Your task to perform on an android device: stop showing notifications on the lock screen Image 0: 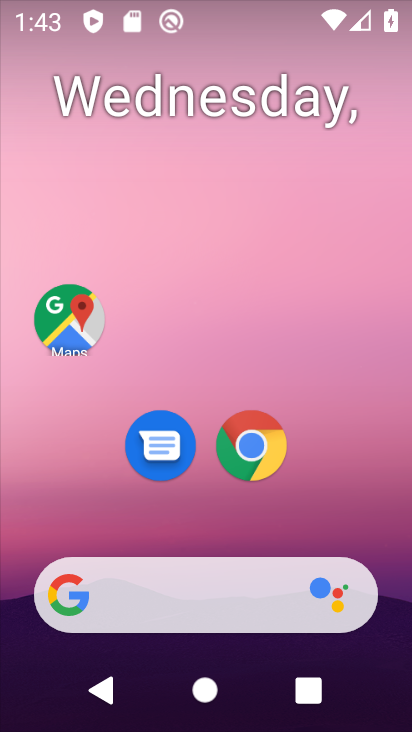
Step 0: drag from (194, 518) to (194, 82)
Your task to perform on an android device: stop showing notifications on the lock screen Image 1: 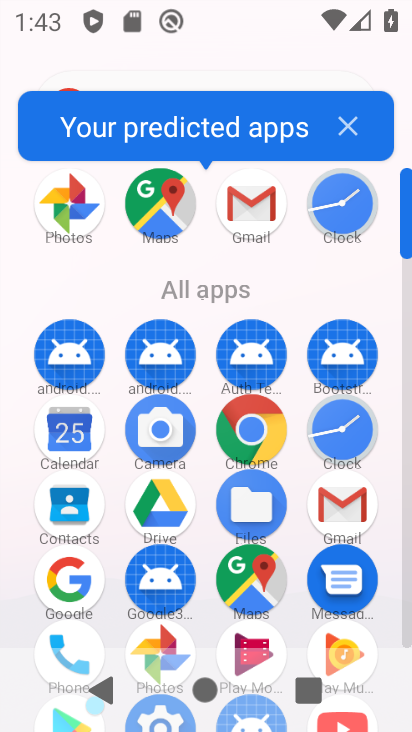
Step 1: drag from (204, 591) to (210, 256)
Your task to perform on an android device: stop showing notifications on the lock screen Image 2: 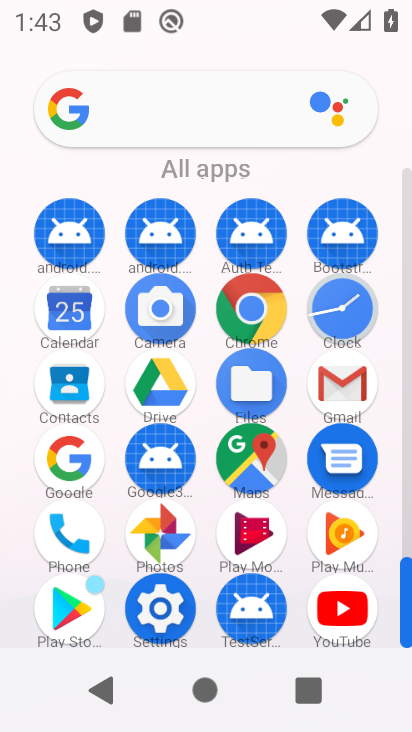
Step 2: click (180, 599)
Your task to perform on an android device: stop showing notifications on the lock screen Image 3: 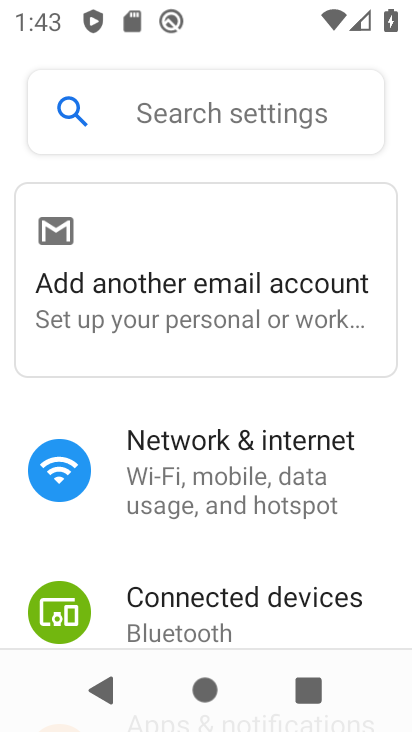
Step 3: drag from (236, 598) to (224, 205)
Your task to perform on an android device: stop showing notifications on the lock screen Image 4: 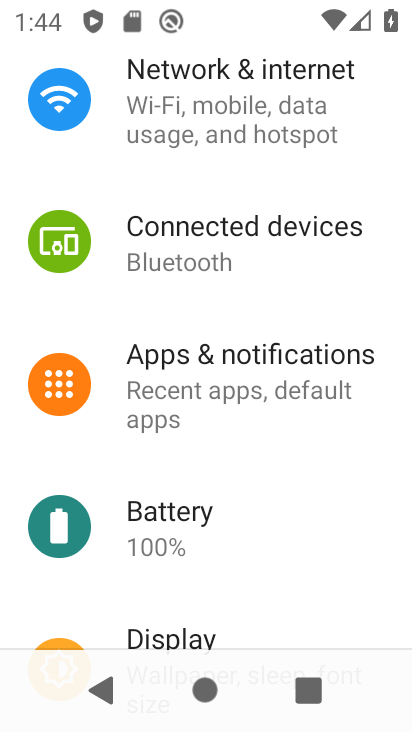
Step 4: drag from (259, 562) to (241, 235)
Your task to perform on an android device: stop showing notifications on the lock screen Image 5: 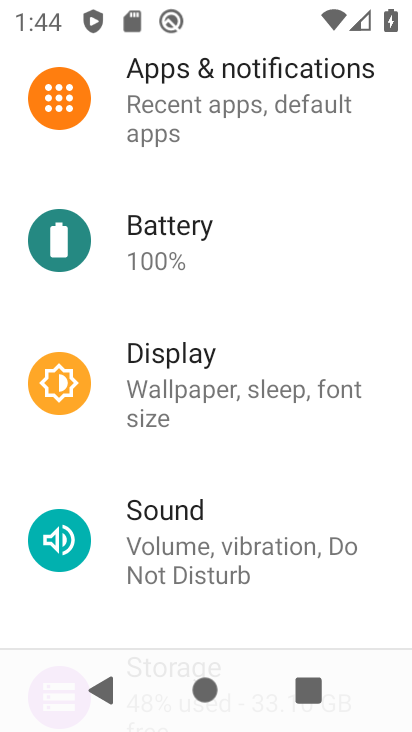
Step 5: click (281, 131)
Your task to perform on an android device: stop showing notifications on the lock screen Image 6: 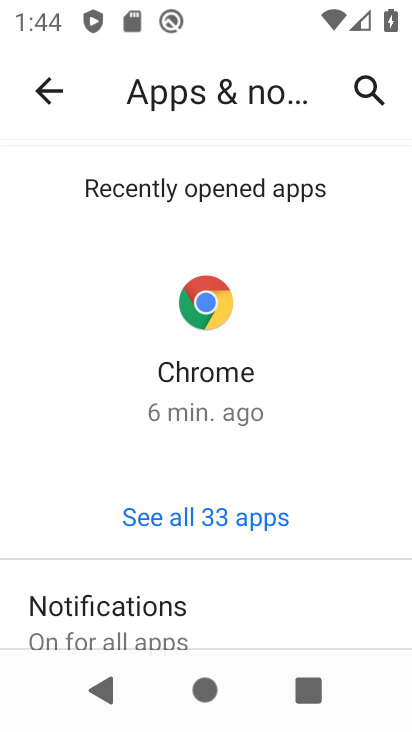
Step 6: click (290, 596)
Your task to perform on an android device: stop showing notifications on the lock screen Image 7: 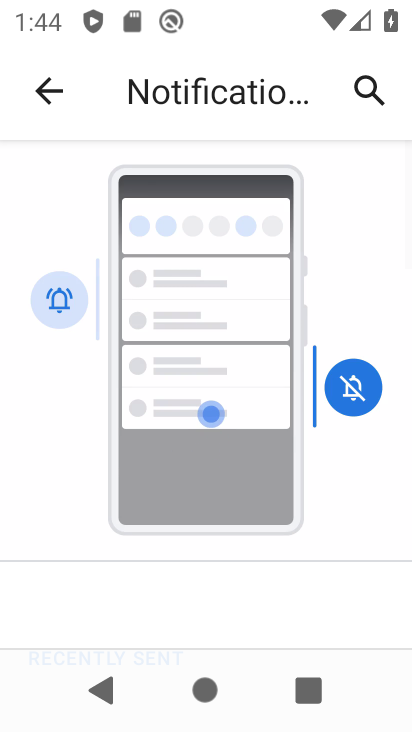
Step 7: drag from (251, 536) to (251, 202)
Your task to perform on an android device: stop showing notifications on the lock screen Image 8: 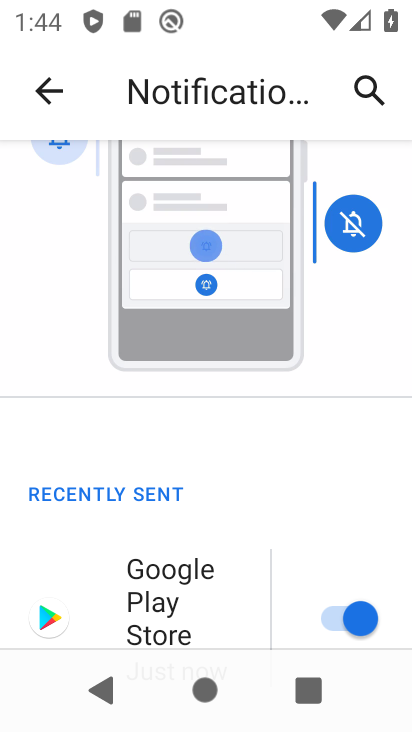
Step 8: drag from (275, 574) to (255, 204)
Your task to perform on an android device: stop showing notifications on the lock screen Image 9: 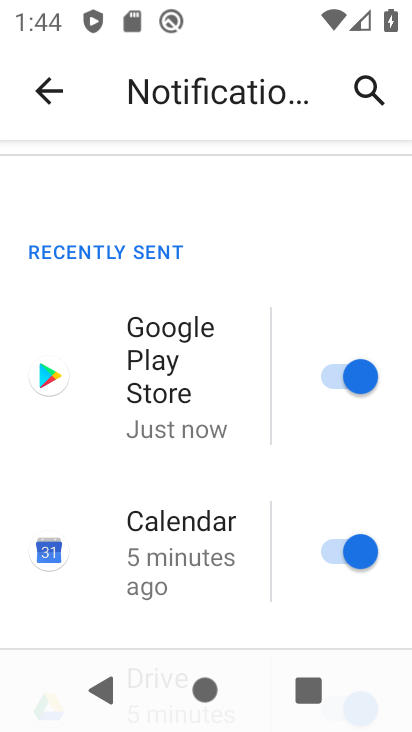
Step 9: drag from (252, 486) to (253, 190)
Your task to perform on an android device: stop showing notifications on the lock screen Image 10: 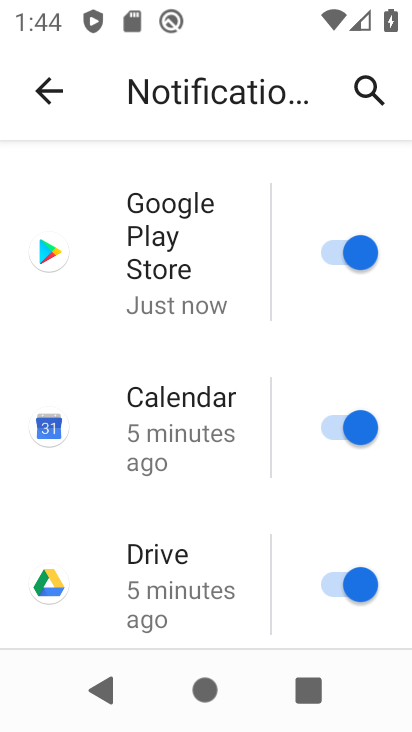
Step 10: drag from (255, 538) to (261, 107)
Your task to perform on an android device: stop showing notifications on the lock screen Image 11: 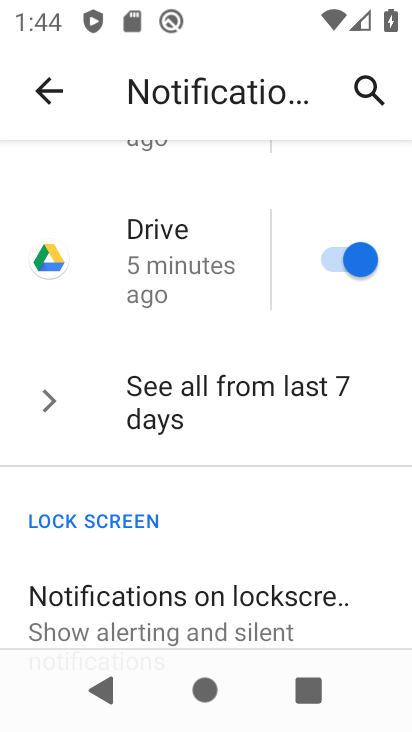
Step 11: click (199, 585)
Your task to perform on an android device: stop showing notifications on the lock screen Image 12: 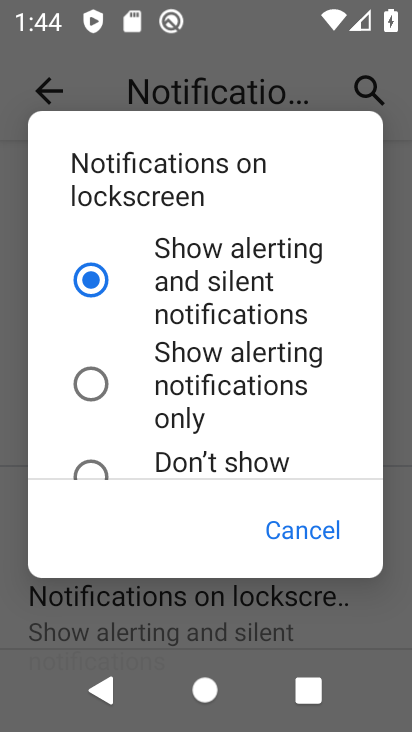
Step 12: click (159, 461)
Your task to perform on an android device: stop showing notifications on the lock screen Image 13: 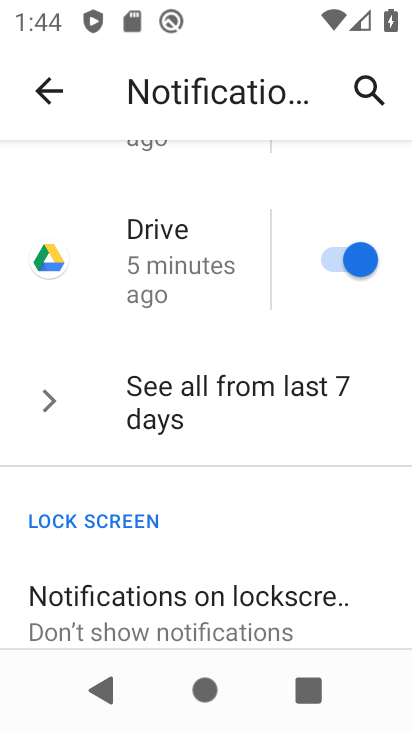
Step 13: task complete